Your task to perform on an android device: See recent photos Image 0: 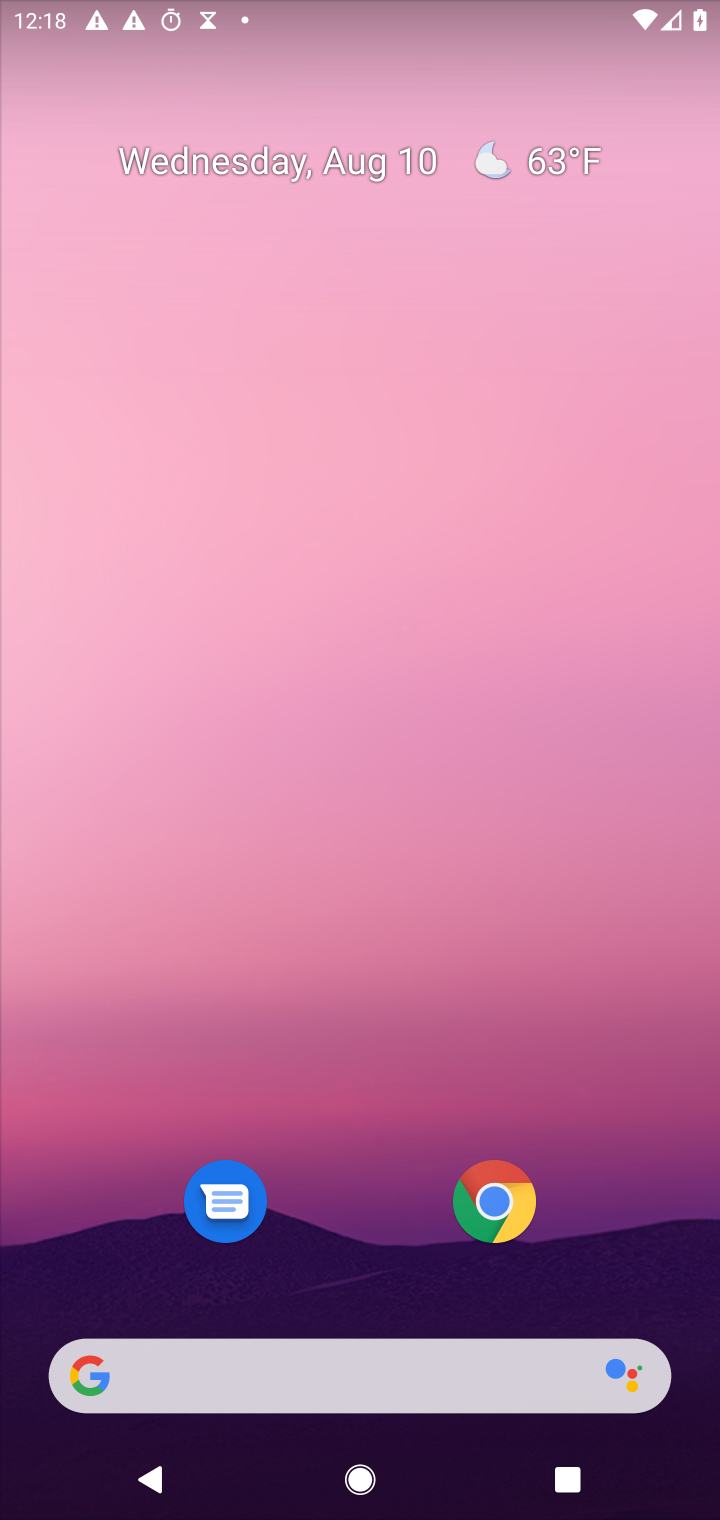
Step 0: press home button
Your task to perform on an android device: See recent photos Image 1: 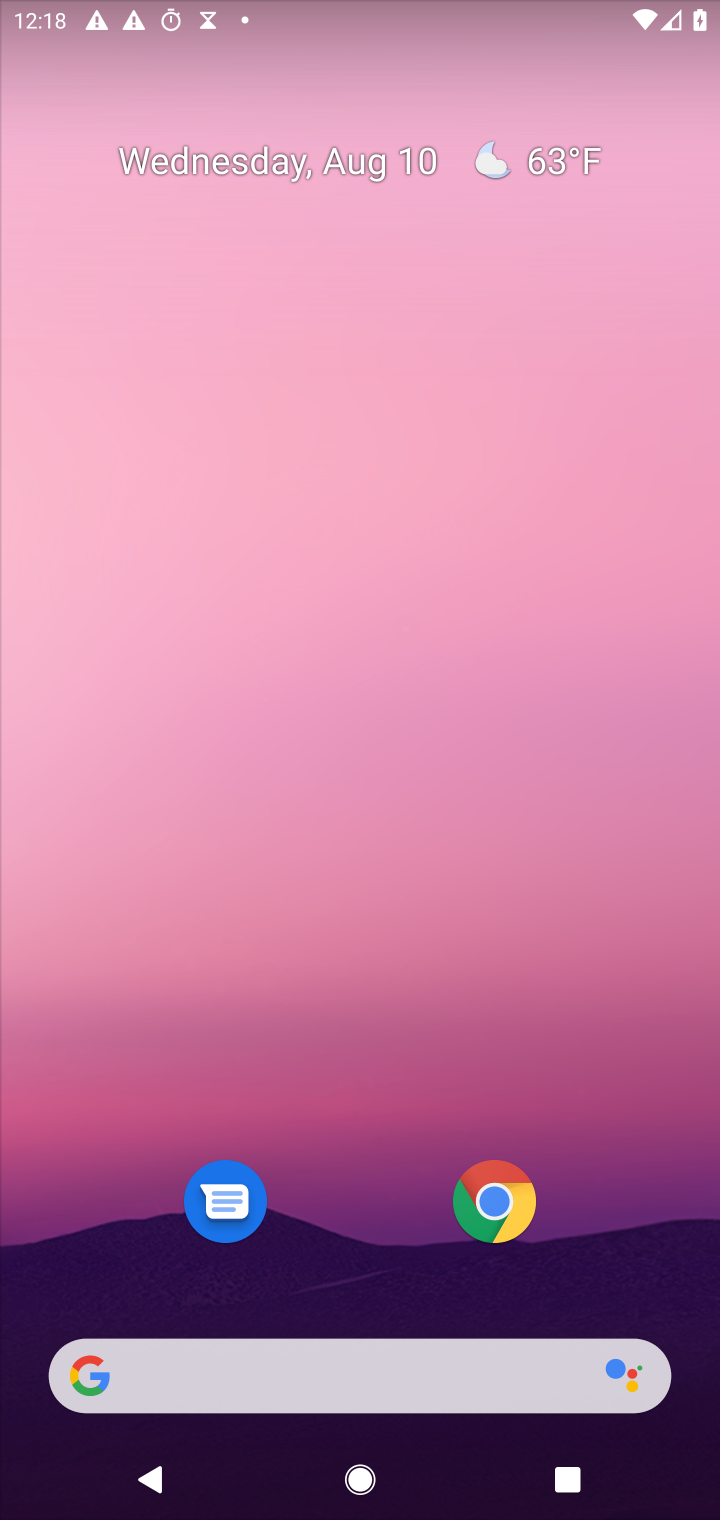
Step 1: drag from (369, 1138) to (359, 49)
Your task to perform on an android device: See recent photos Image 2: 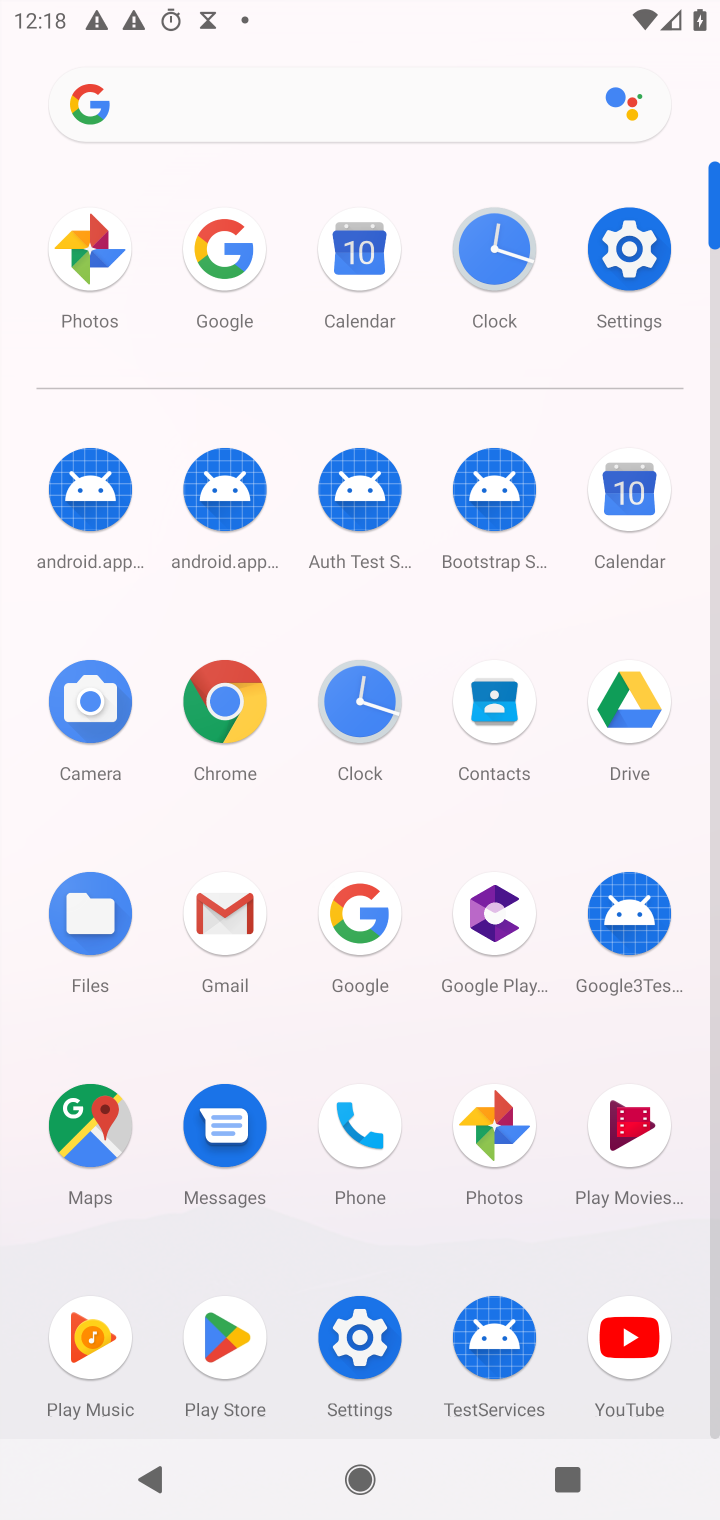
Step 2: click (496, 1144)
Your task to perform on an android device: See recent photos Image 3: 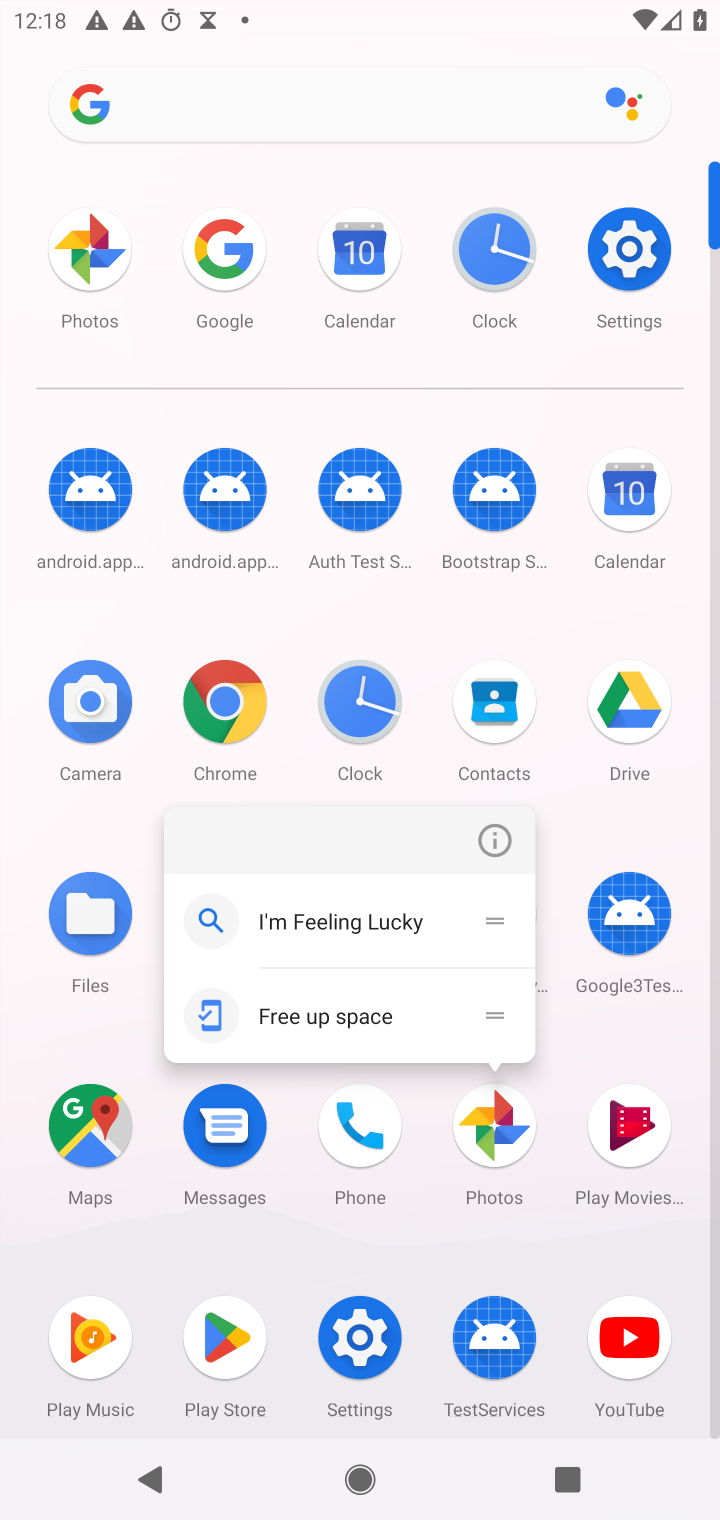
Step 3: click (503, 1117)
Your task to perform on an android device: See recent photos Image 4: 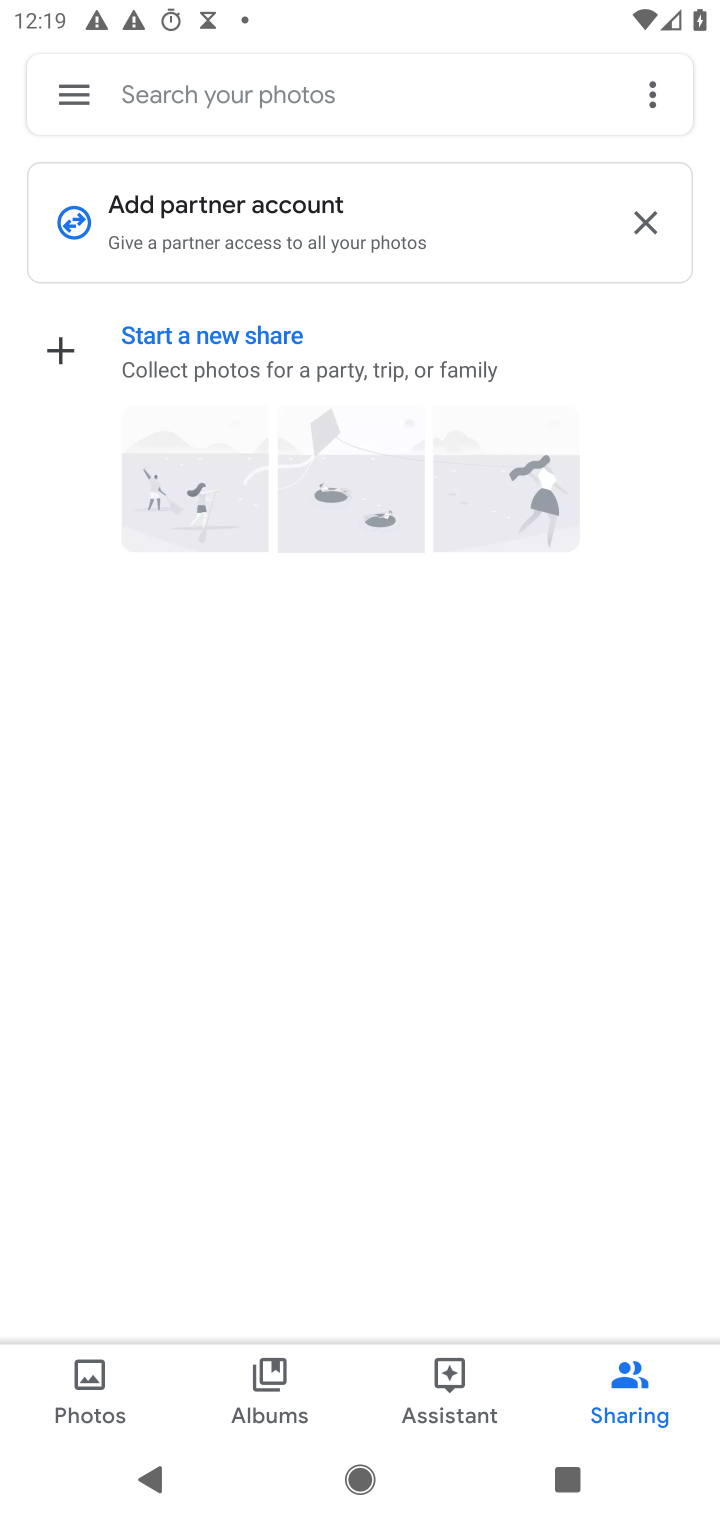
Step 4: click (101, 1390)
Your task to perform on an android device: See recent photos Image 5: 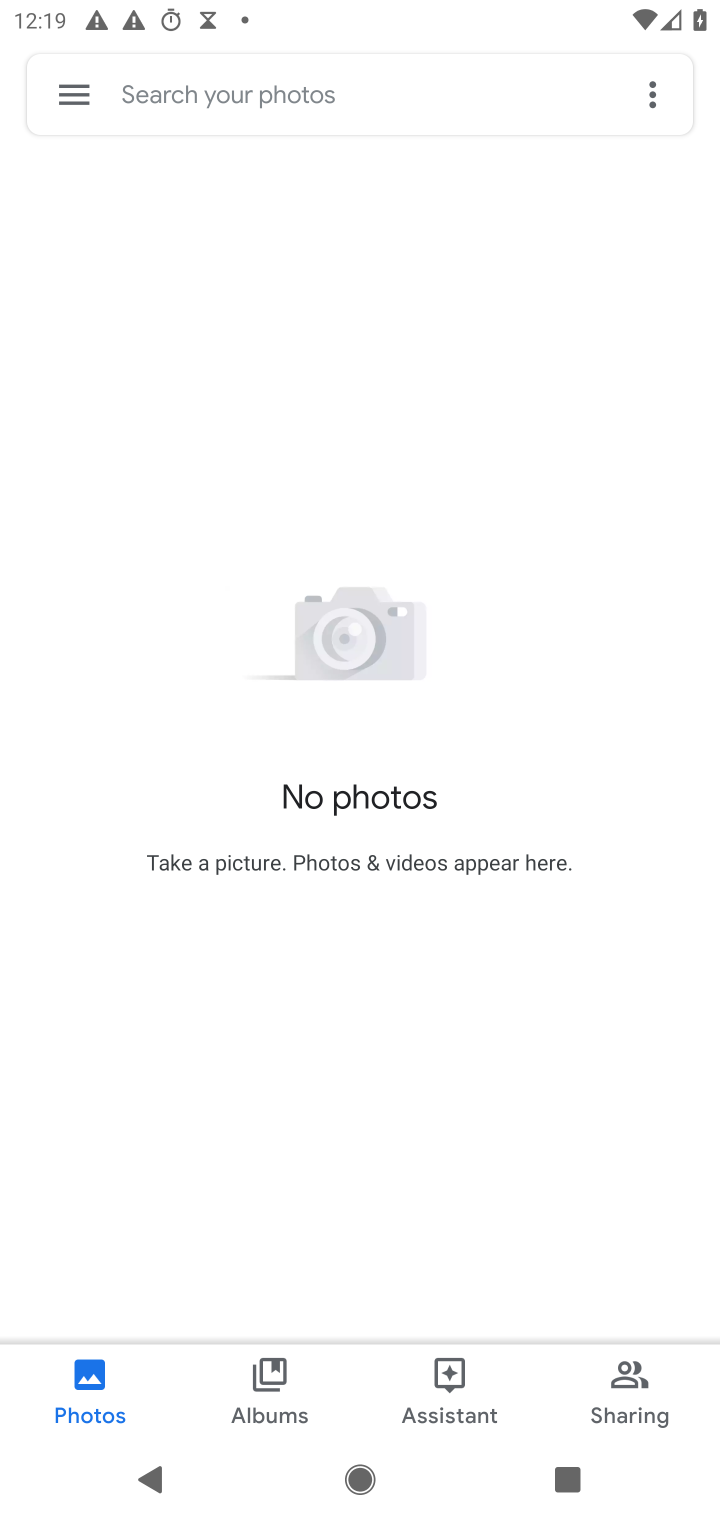
Step 5: task complete